Your task to perform on an android device: See recent photos Image 0: 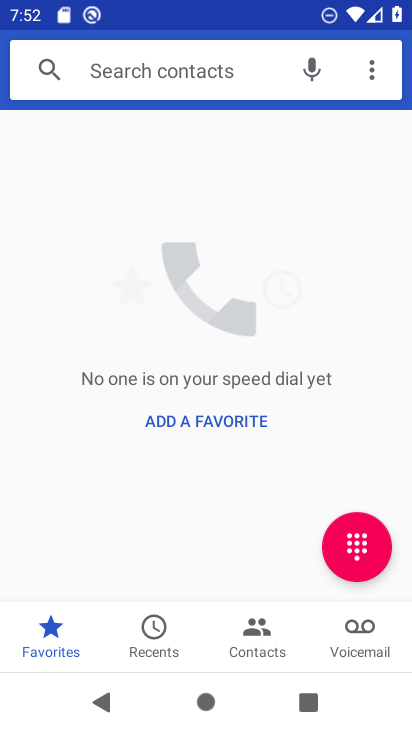
Step 0: press home button
Your task to perform on an android device: See recent photos Image 1: 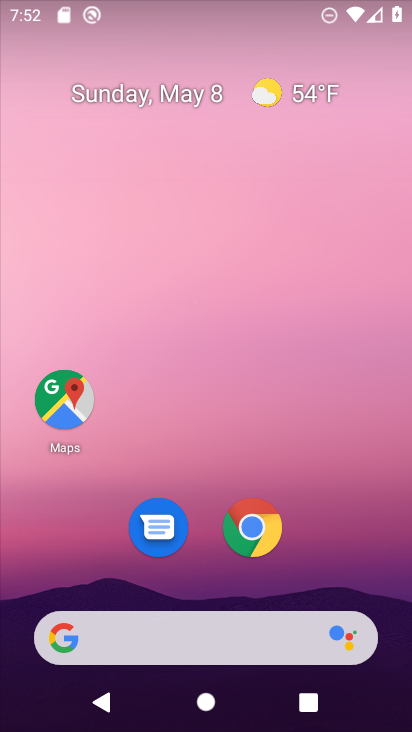
Step 1: drag from (360, 545) to (354, 87)
Your task to perform on an android device: See recent photos Image 2: 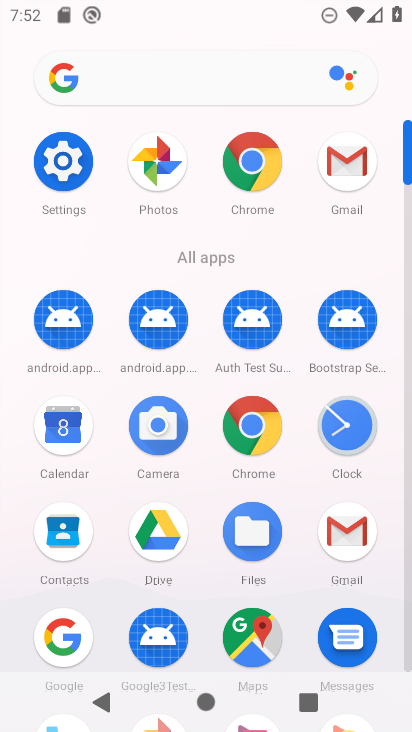
Step 2: click (171, 159)
Your task to perform on an android device: See recent photos Image 3: 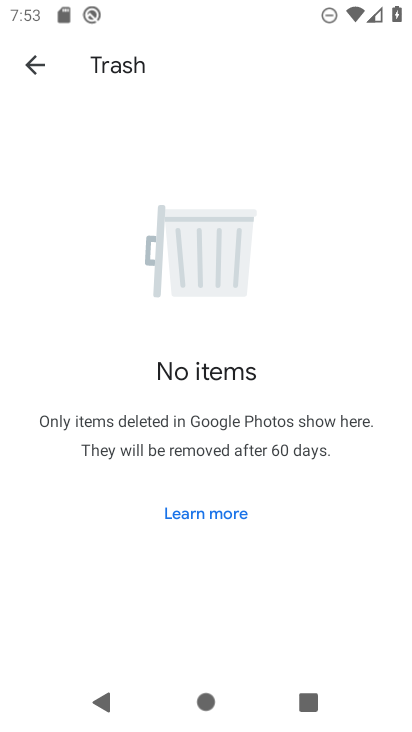
Step 3: click (68, 70)
Your task to perform on an android device: See recent photos Image 4: 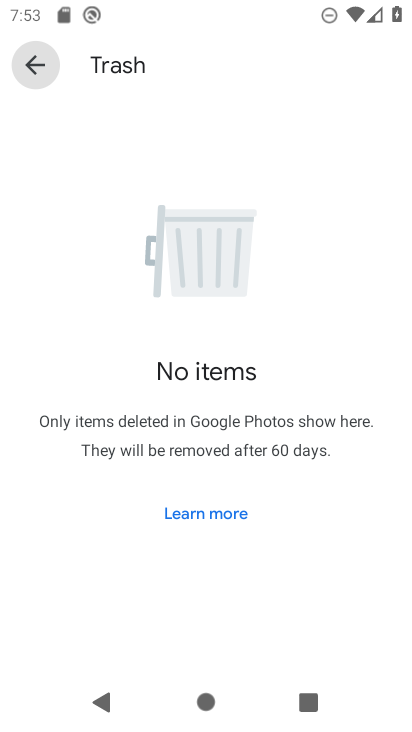
Step 4: click (39, 79)
Your task to perform on an android device: See recent photos Image 5: 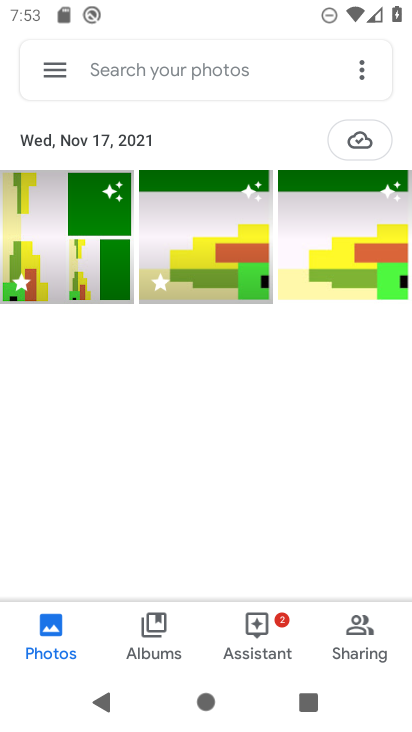
Step 5: task complete